Your task to perform on an android device: Go to location settings Image 0: 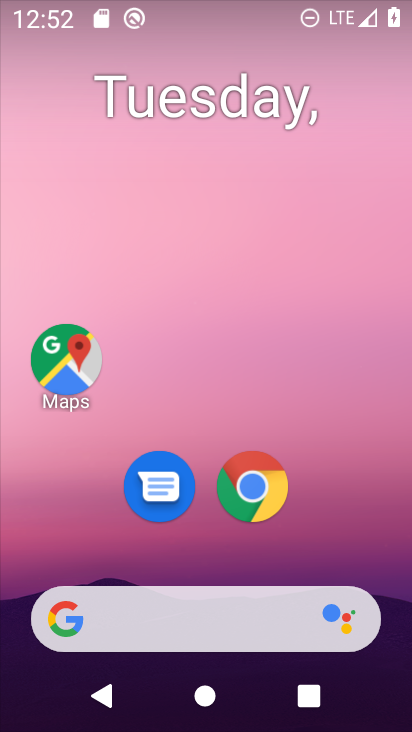
Step 0: click (260, 135)
Your task to perform on an android device: Go to location settings Image 1: 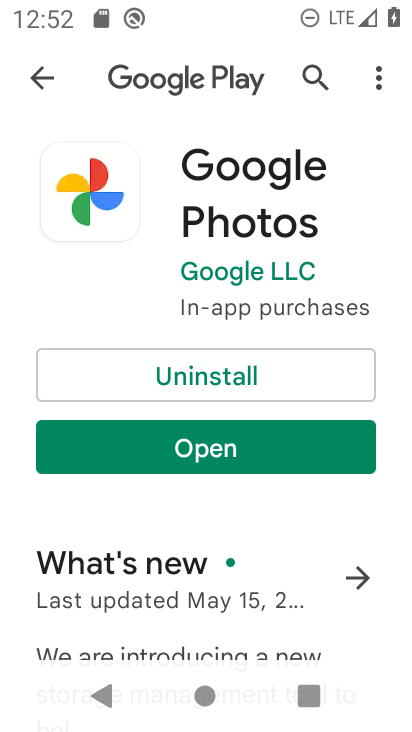
Step 1: press home button
Your task to perform on an android device: Go to location settings Image 2: 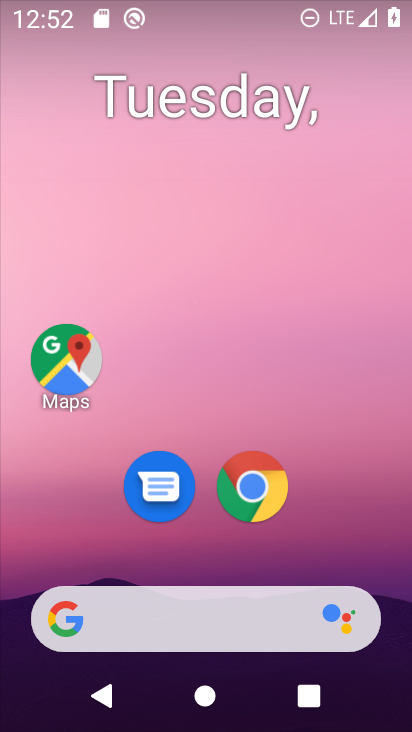
Step 2: drag from (235, 477) to (253, 119)
Your task to perform on an android device: Go to location settings Image 3: 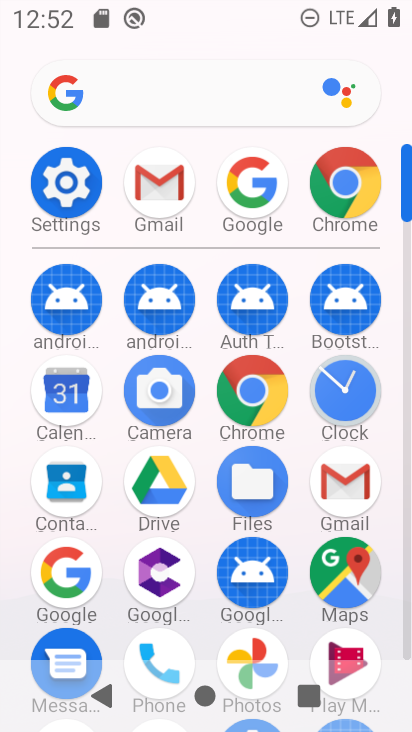
Step 3: drag from (214, 259) to (219, 18)
Your task to perform on an android device: Go to location settings Image 4: 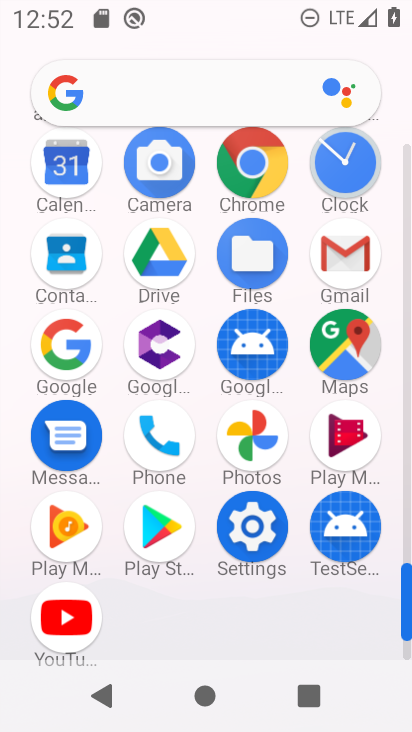
Step 4: click (253, 530)
Your task to perform on an android device: Go to location settings Image 5: 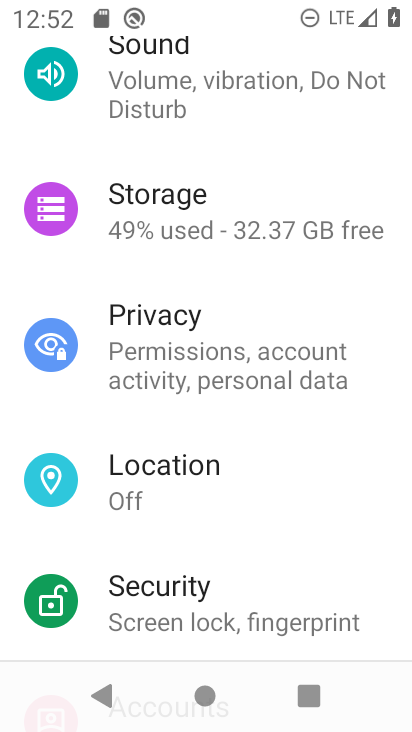
Step 5: click (212, 491)
Your task to perform on an android device: Go to location settings Image 6: 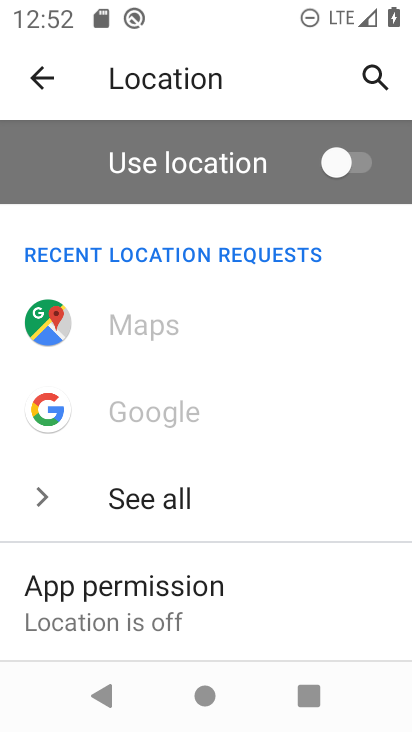
Step 6: task complete